Your task to perform on an android device: show emergency info Image 0: 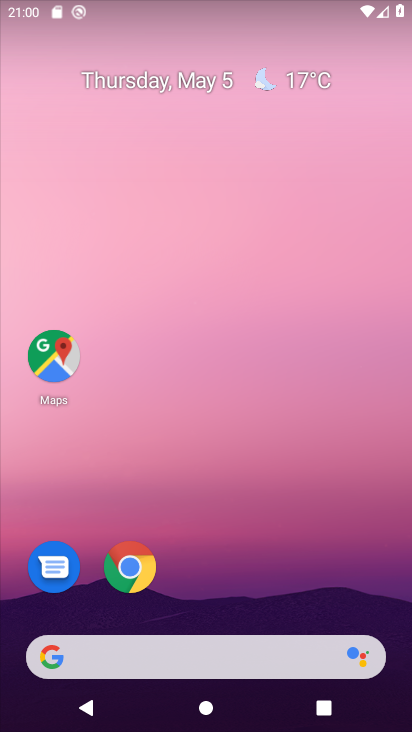
Step 0: drag from (235, 564) to (220, 33)
Your task to perform on an android device: show emergency info Image 1: 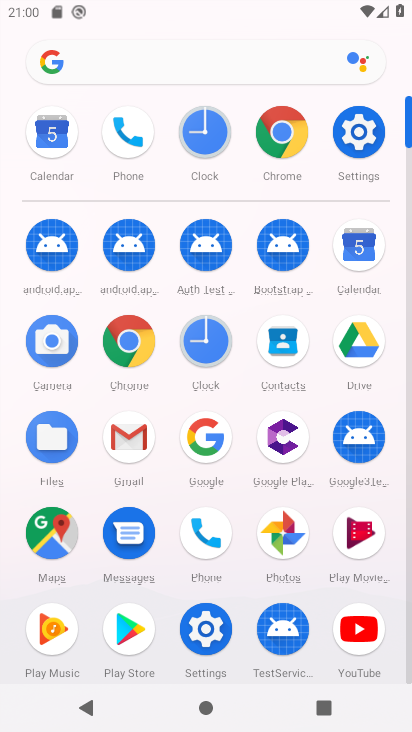
Step 1: click (351, 136)
Your task to perform on an android device: show emergency info Image 2: 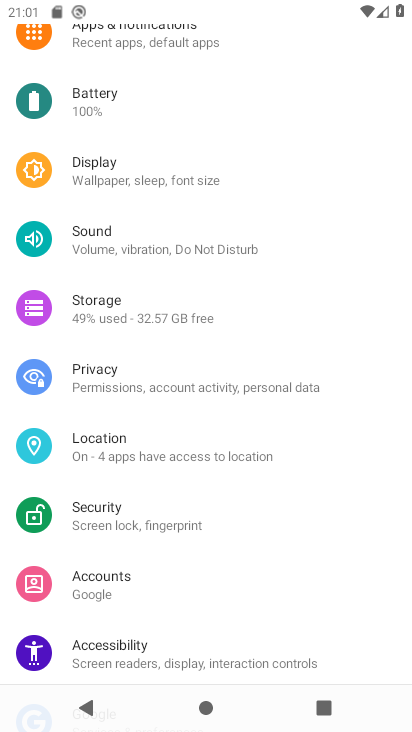
Step 2: drag from (256, 607) to (256, 163)
Your task to perform on an android device: show emergency info Image 3: 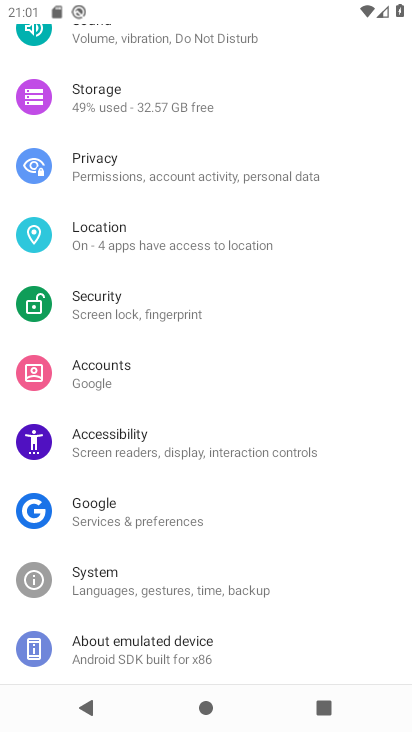
Step 3: click (158, 644)
Your task to perform on an android device: show emergency info Image 4: 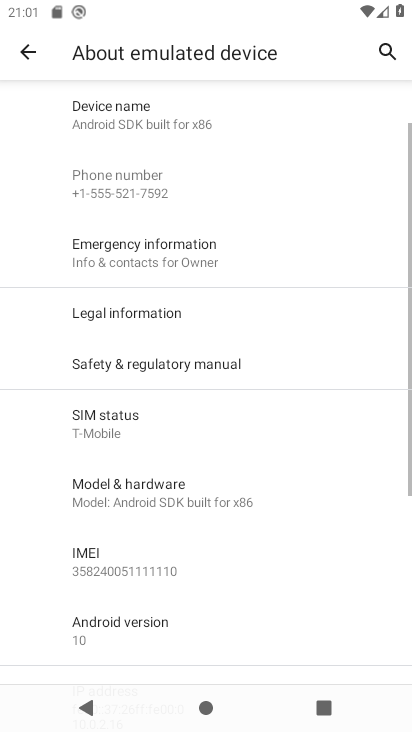
Step 4: click (168, 244)
Your task to perform on an android device: show emergency info Image 5: 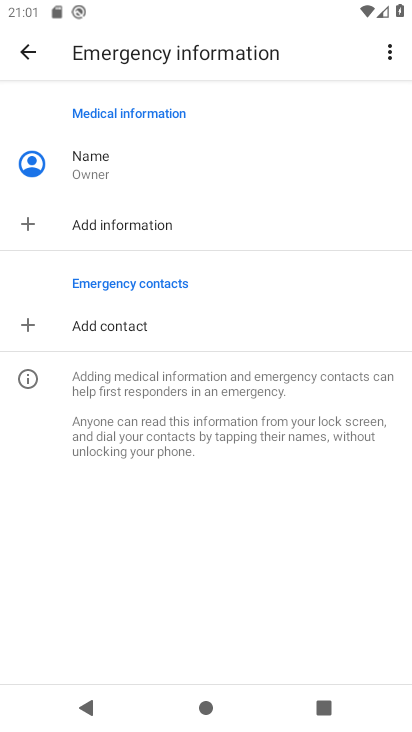
Step 5: task complete